Your task to perform on an android device: Show me popular games on the Play Store Image 0: 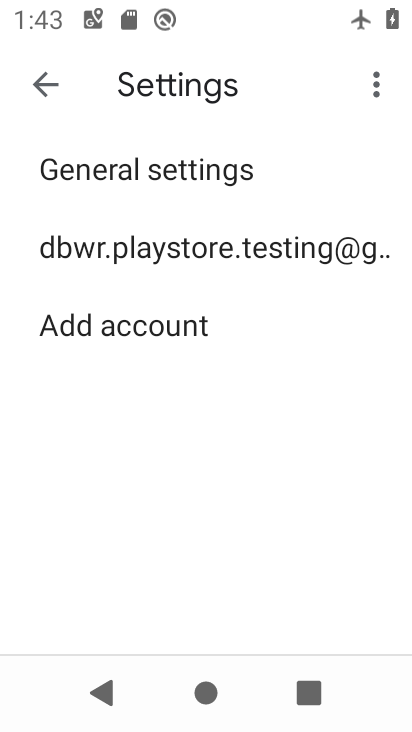
Step 0: press home button
Your task to perform on an android device: Show me popular games on the Play Store Image 1: 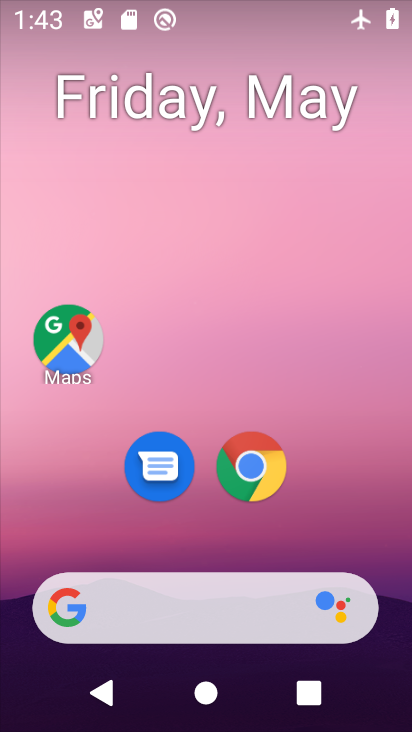
Step 1: drag from (332, 511) to (375, 1)
Your task to perform on an android device: Show me popular games on the Play Store Image 2: 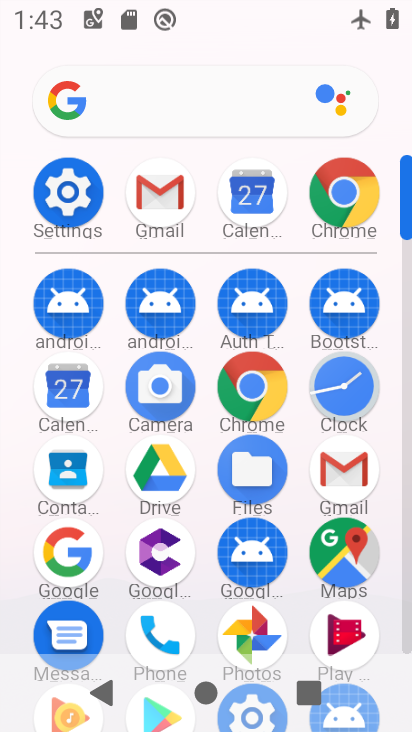
Step 2: drag from (394, 578) to (403, 154)
Your task to perform on an android device: Show me popular games on the Play Store Image 3: 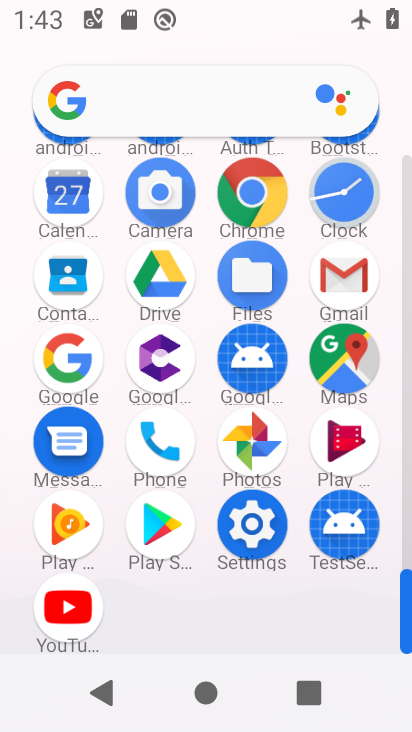
Step 3: click (162, 525)
Your task to perform on an android device: Show me popular games on the Play Store Image 4: 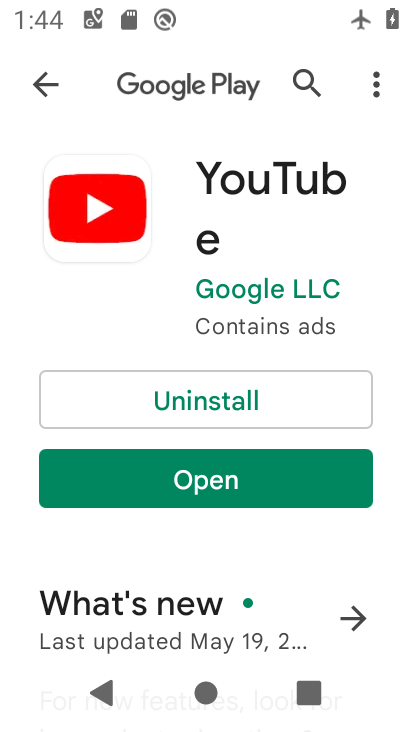
Step 4: click (210, 464)
Your task to perform on an android device: Show me popular games on the Play Store Image 5: 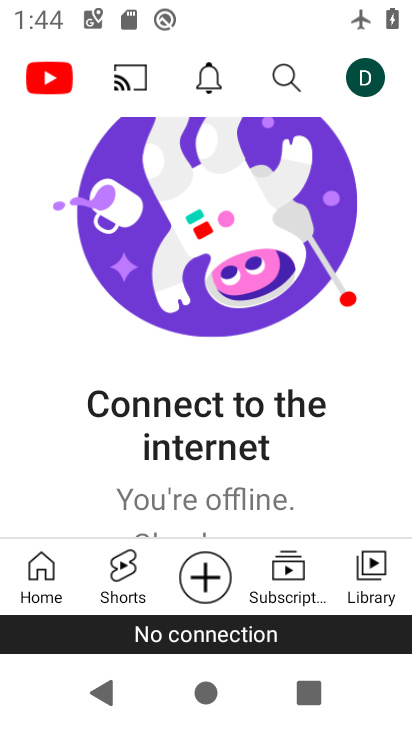
Step 5: click (278, 85)
Your task to perform on an android device: Show me popular games on the Play Store Image 6: 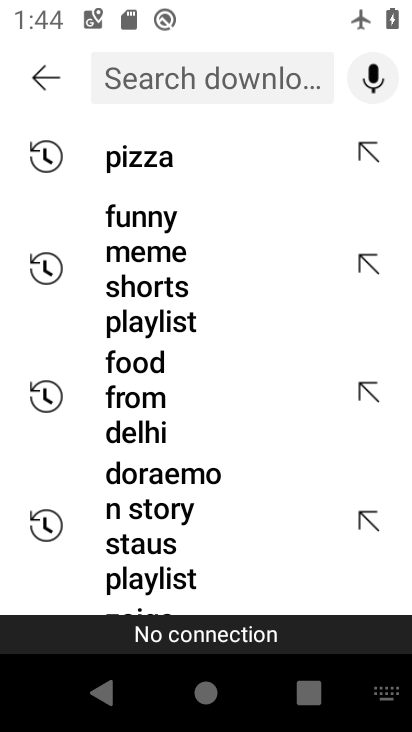
Step 6: type "popular games"
Your task to perform on an android device: Show me popular games on the Play Store Image 7: 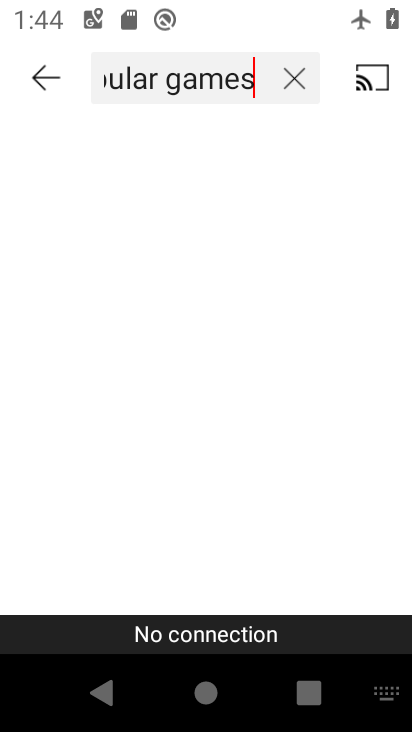
Step 7: press enter
Your task to perform on an android device: Show me popular games on the Play Store Image 8: 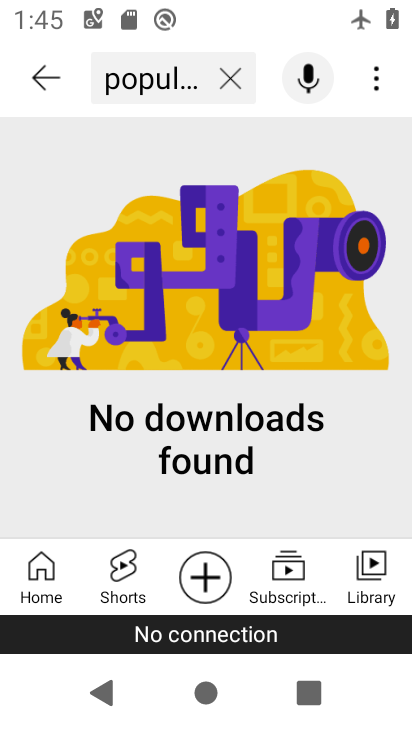
Step 8: task complete